Your task to perform on an android device: toggle notifications settings in the gmail app Image 0: 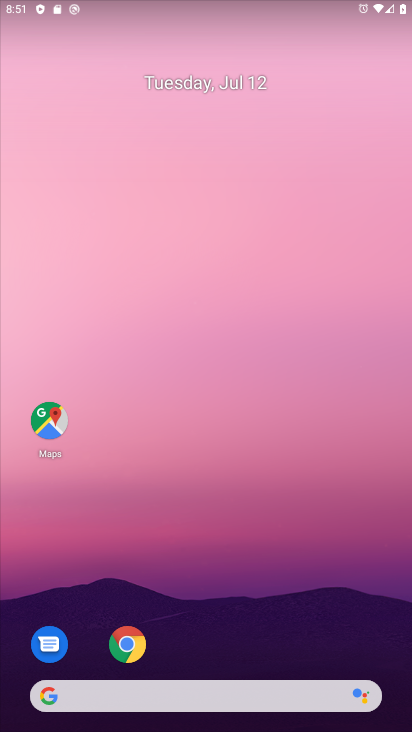
Step 0: drag from (48, 634) to (259, 204)
Your task to perform on an android device: toggle notifications settings in the gmail app Image 1: 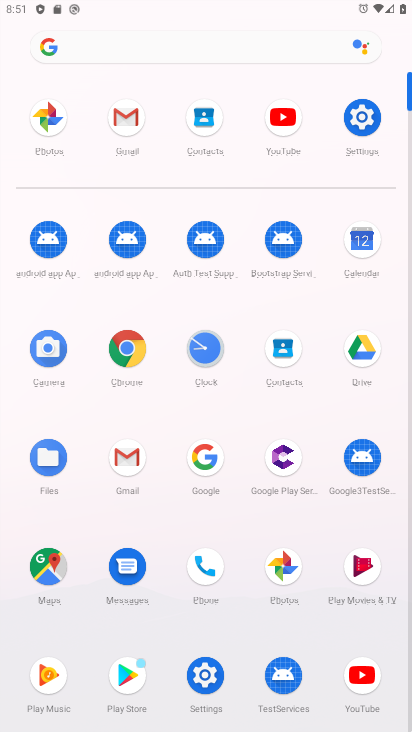
Step 1: click (127, 464)
Your task to perform on an android device: toggle notifications settings in the gmail app Image 2: 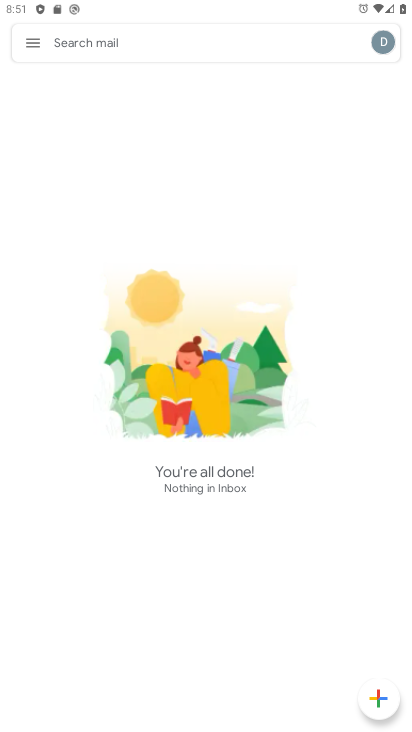
Step 2: click (25, 45)
Your task to perform on an android device: toggle notifications settings in the gmail app Image 3: 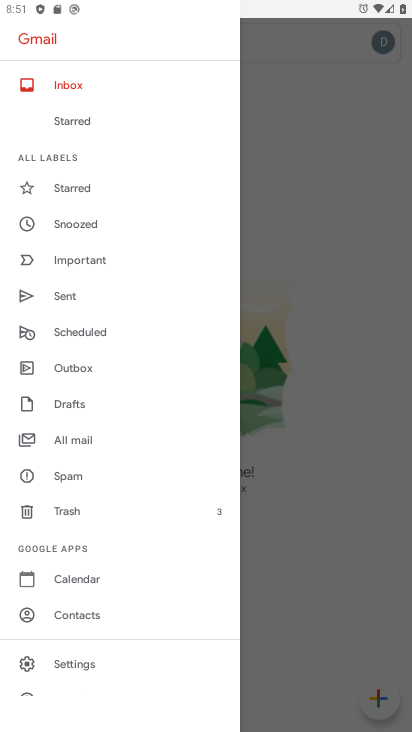
Step 3: click (82, 651)
Your task to perform on an android device: toggle notifications settings in the gmail app Image 4: 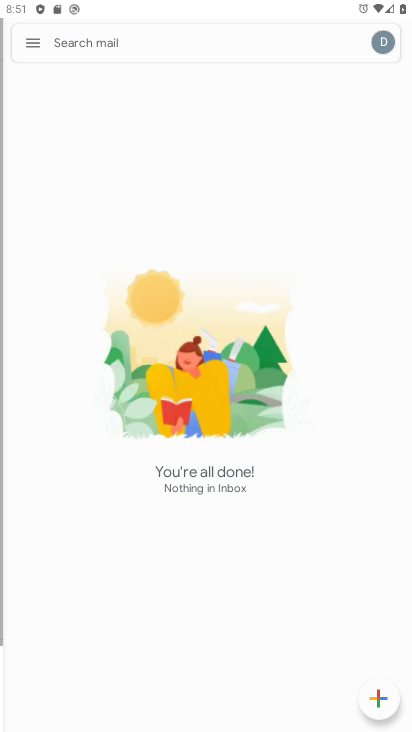
Step 4: click (82, 651)
Your task to perform on an android device: toggle notifications settings in the gmail app Image 5: 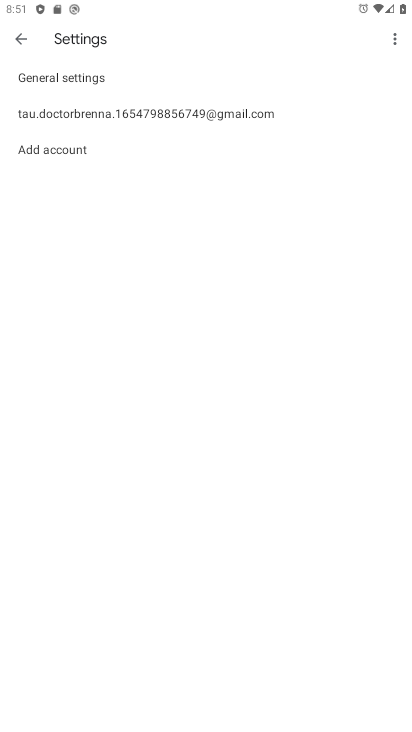
Step 5: click (47, 73)
Your task to perform on an android device: toggle notifications settings in the gmail app Image 6: 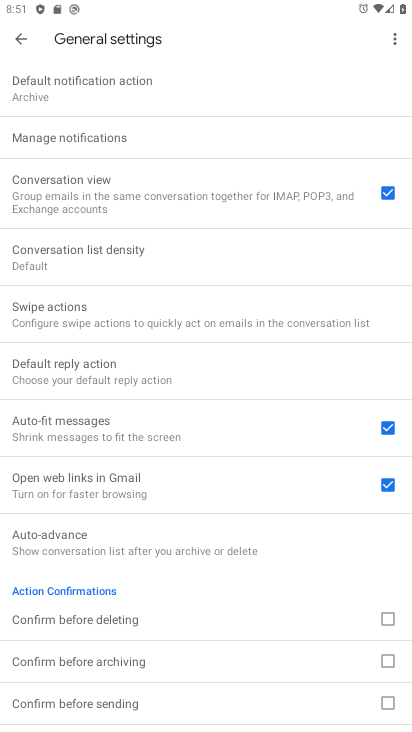
Step 6: click (74, 92)
Your task to perform on an android device: toggle notifications settings in the gmail app Image 7: 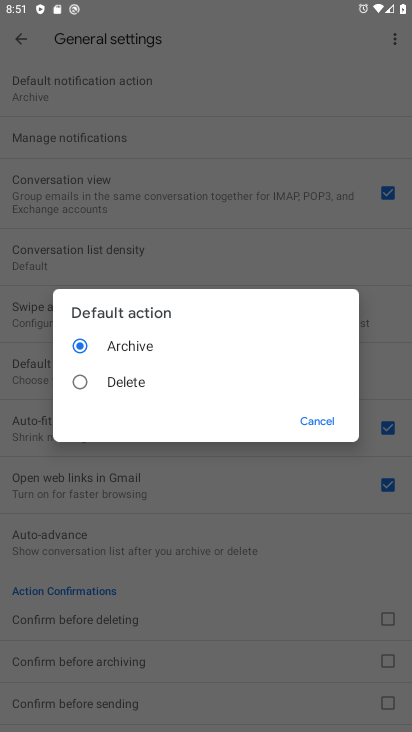
Step 7: click (74, 92)
Your task to perform on an android device: toggle notifications settings in the gmail app Image 8: 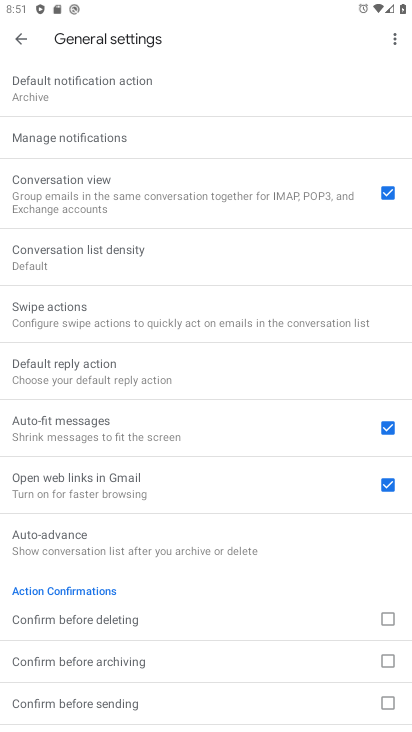
Step 8: click (58, 146)
Your task to perform on an android device: toggle notifications settings in the gmail app Image 9: 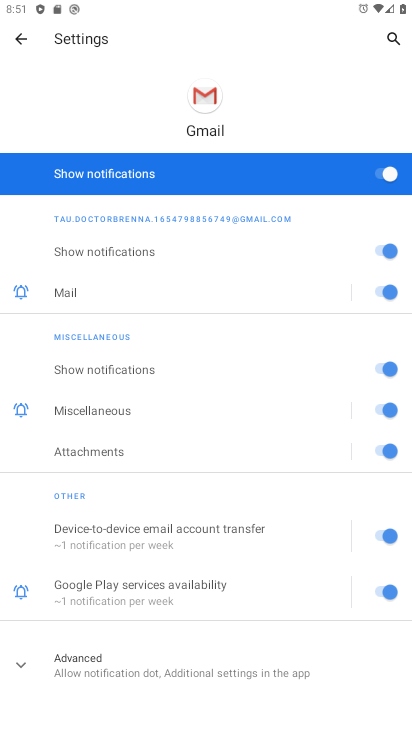
Step 9: click (103, 141)
Your task to perform on an android device: toggle notifications settings in the gmail app Image 10: 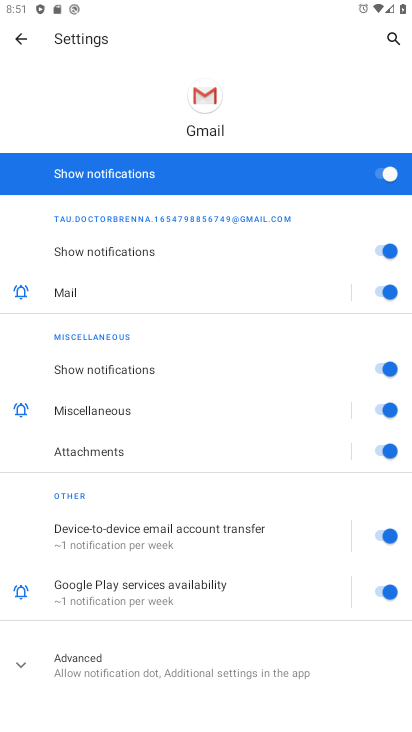
Step 10: task complete